Your task to perform on an android device: open sync settings in chrome Image 0: 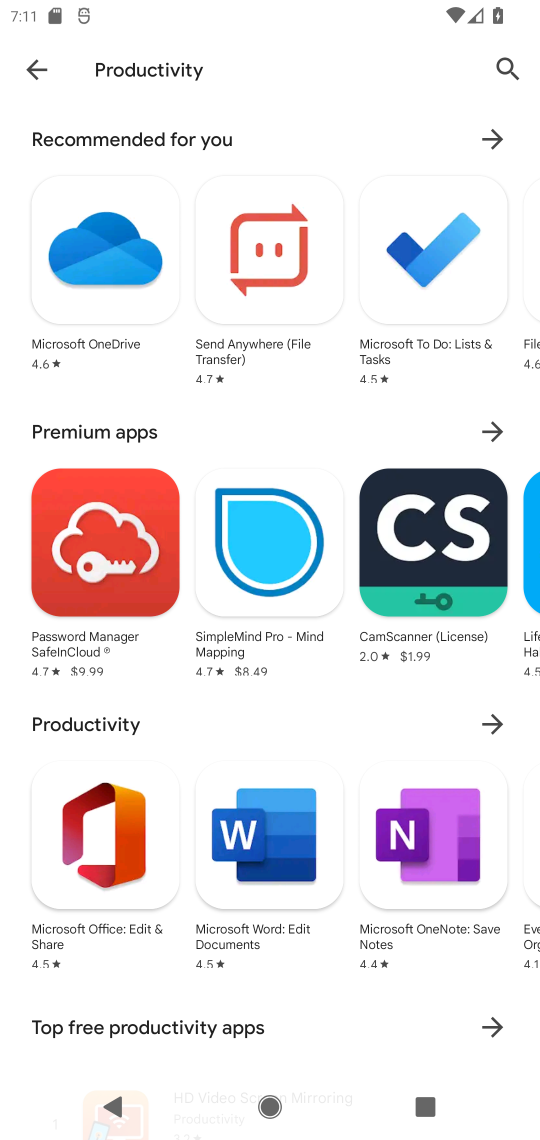
Step 0: press home button
Your task to perform on an android device: open sync settings in chrome Image 1: 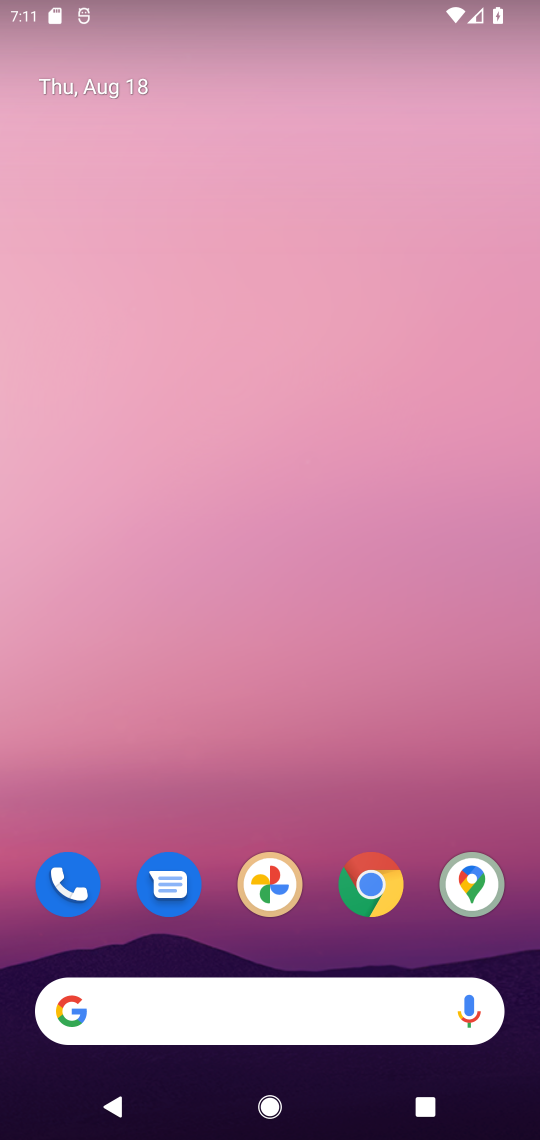
Step 1: click (376, 885)
Your task to perform on an android device: open sync settings in chrome Image 2: 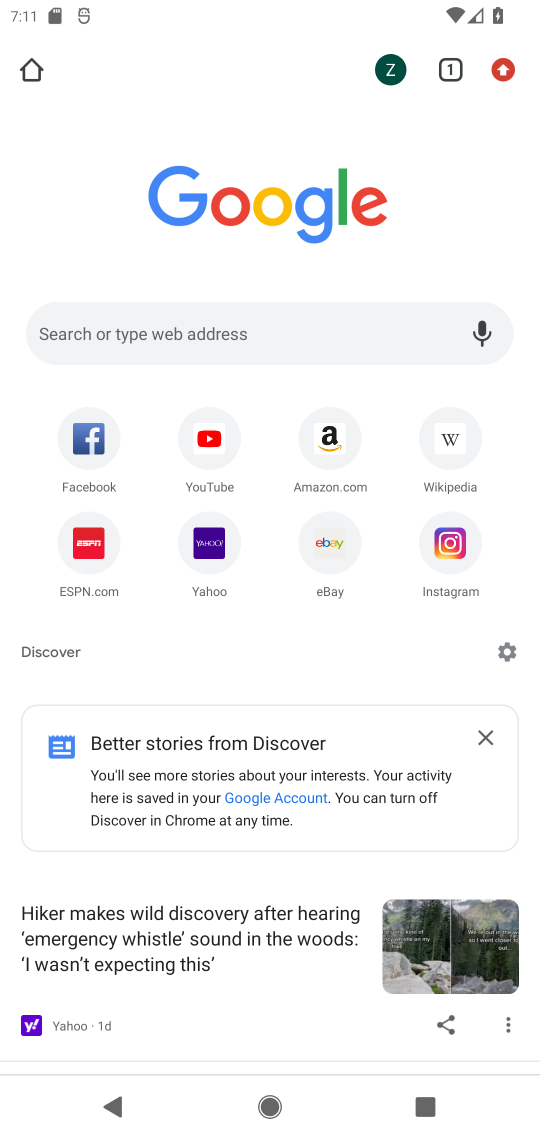
Step 2: click (513, 64)
Your task to perform on an android device: open sync settings in chrome Image 3: 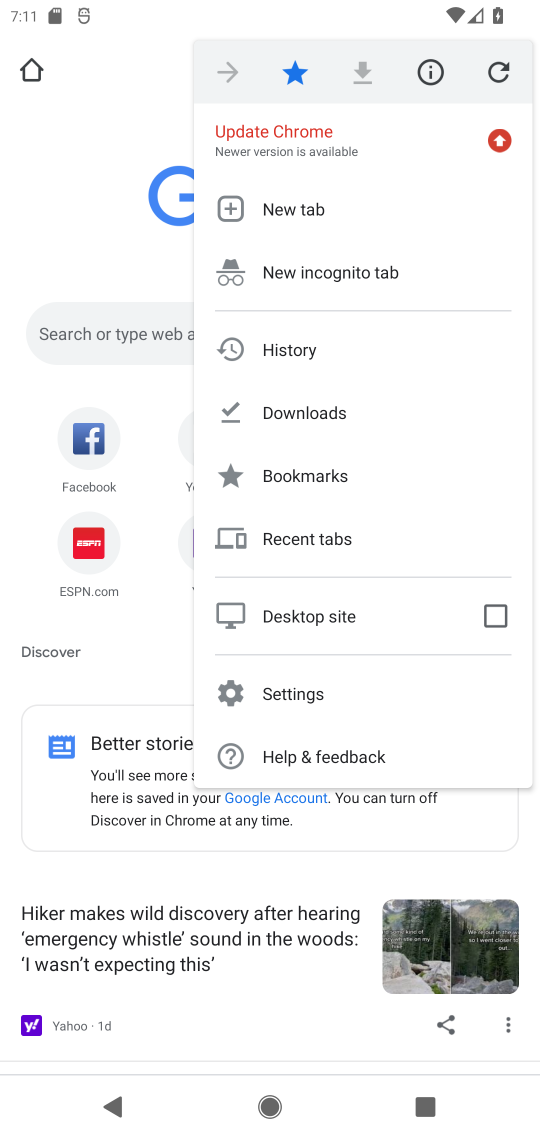
Step 3: click (355, 693)
Your task to perform on an android device: open sync settings in chrome Image 4: 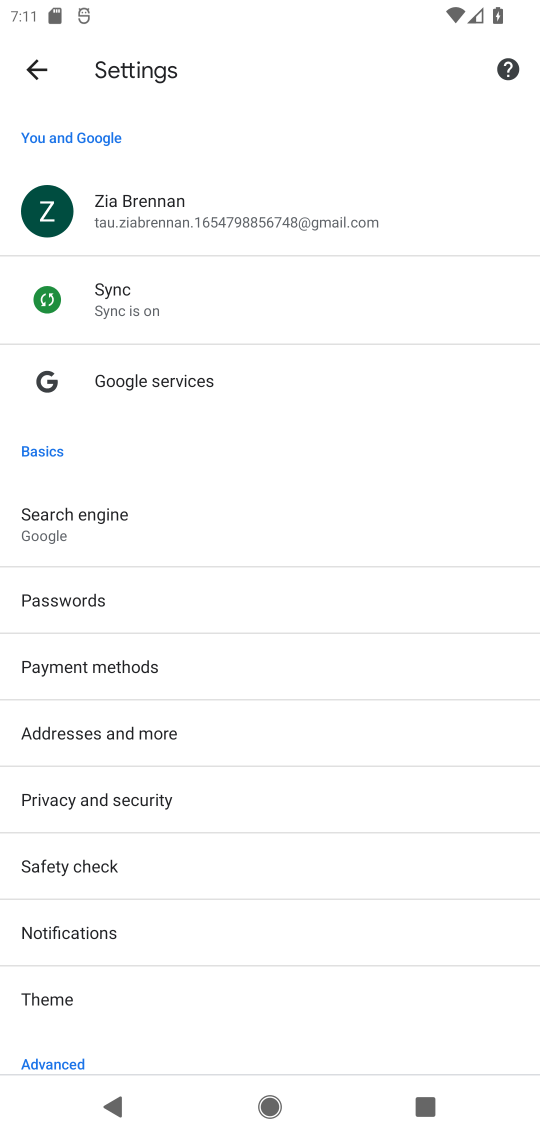
Step 4: click (216, 308)
Your task to perform on an android device: open sync settings in chrome Image 5: 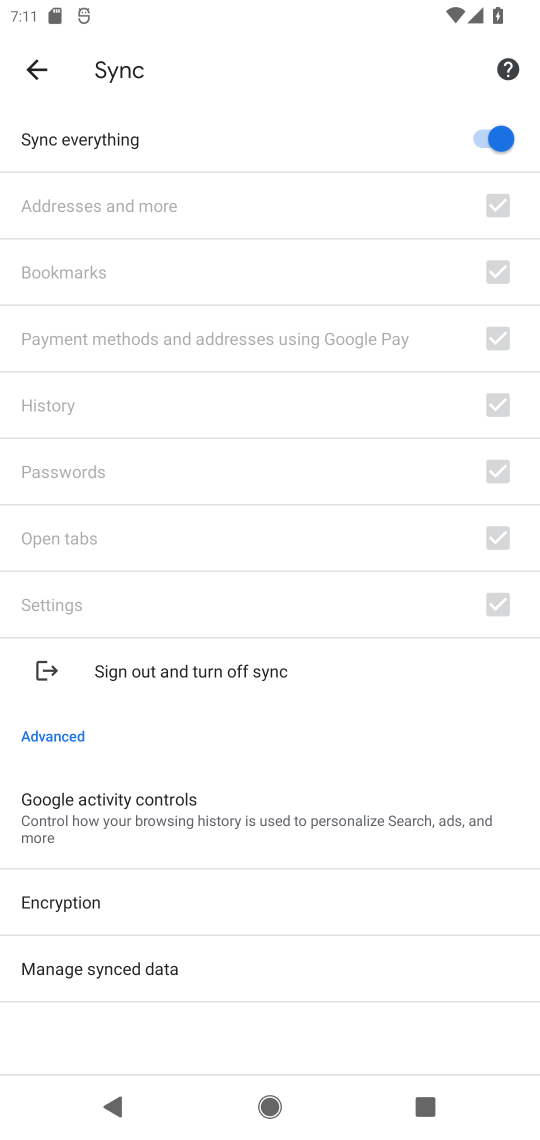
Step 5: task complete